Your task to perform on an android device: Clear all items from cart on bestbuy.com. Add "amazon basics triple a" to the cart on bestbuy.com Image 0: 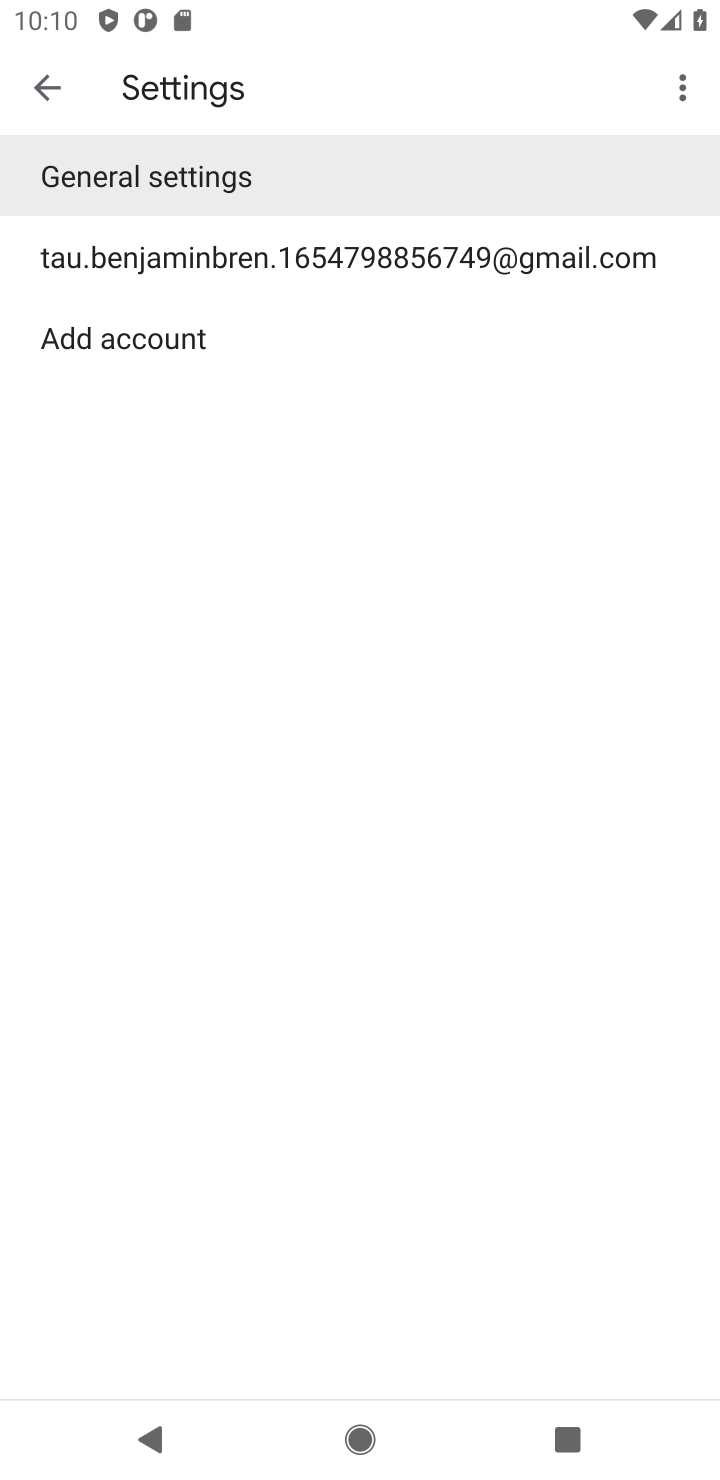
Step 0: press home button
Your task to perform on an android device: Clear all items from cart on bestbuy.com. Add "amazon basics triple a" to the cart on bestbuy.com Image 1: 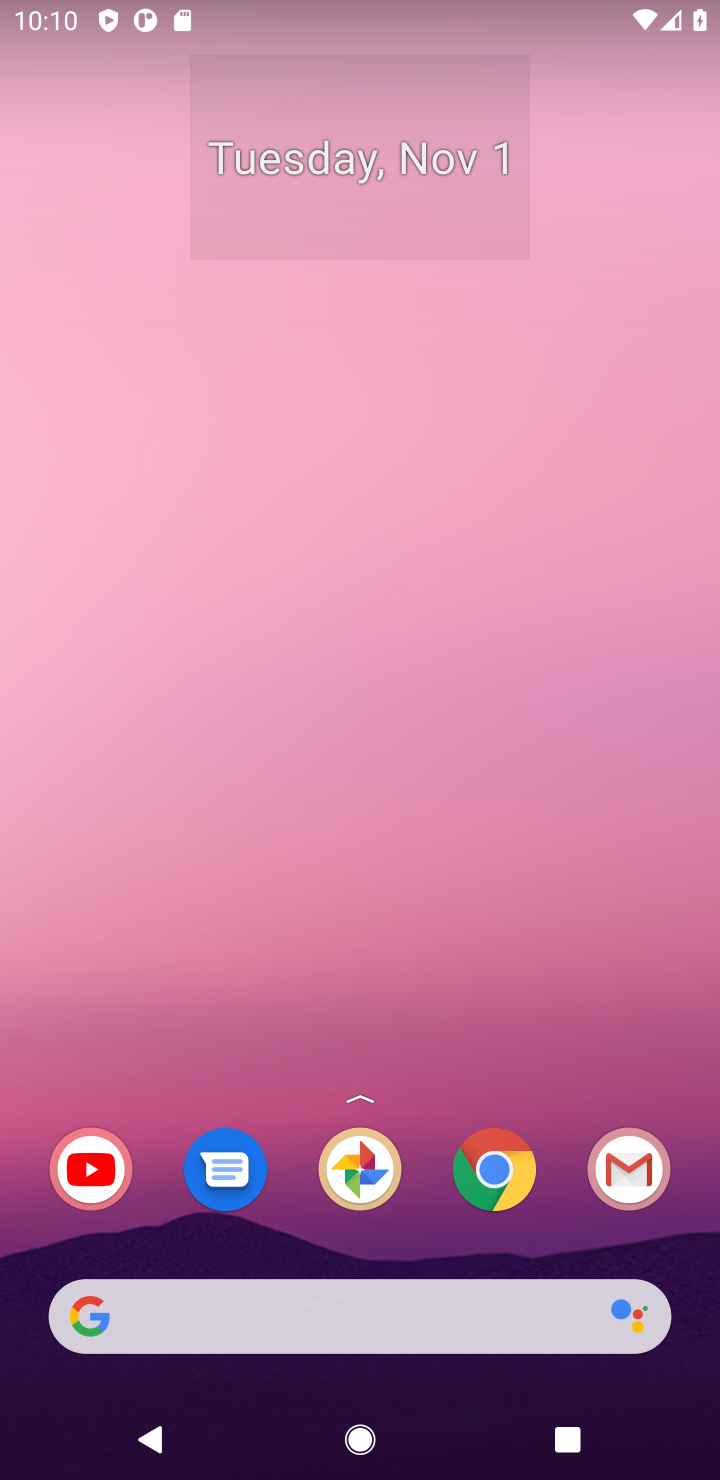
Step 1: click (491, 1172)
Your task to perform on an android device: Clear all items from cart on bestbuy.com. Add "amazon basics triple a" to the cart on bestbuy.com Image 2: 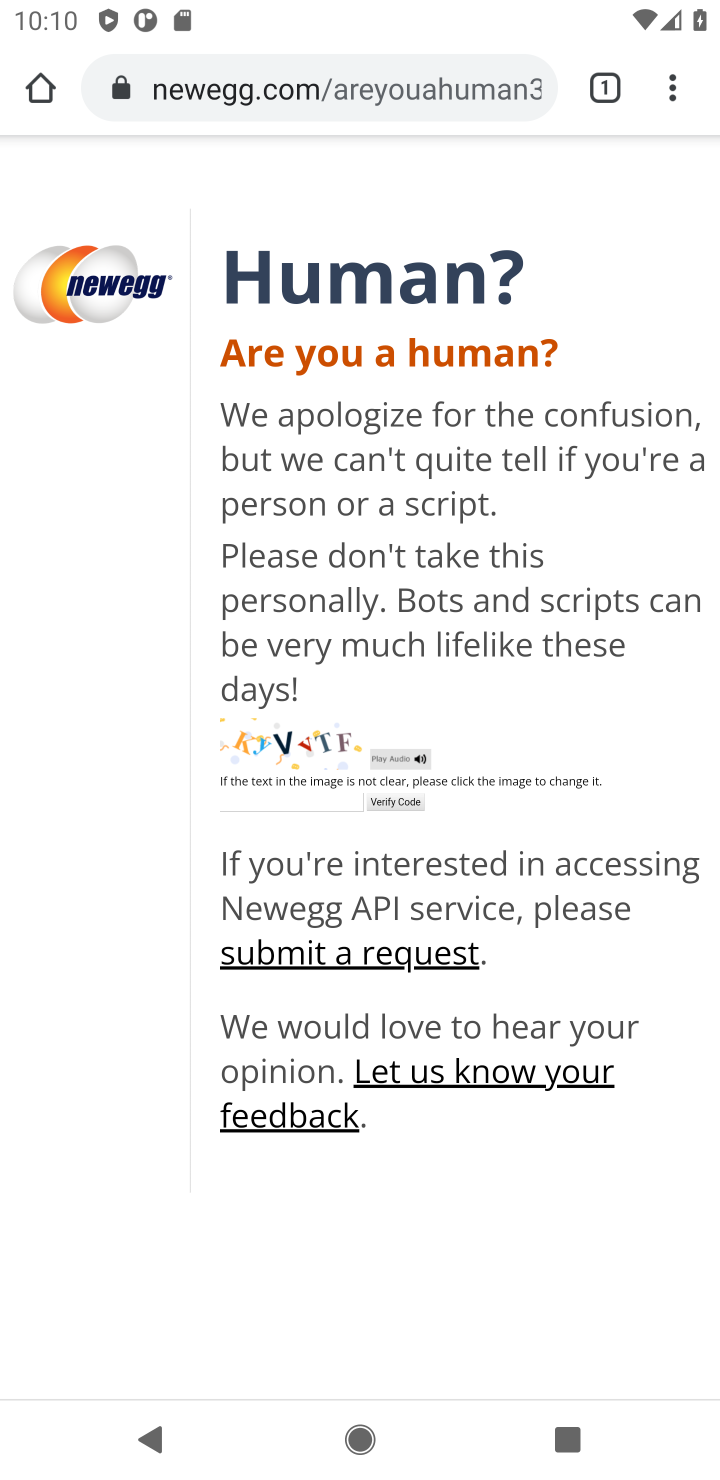
Step 2: click (360, 64)
Your task to perform on an android device: Clear all items from cart on bestbuy.com. Add "amazon basics triple a" to the cart on bestbuy.com Image 3: 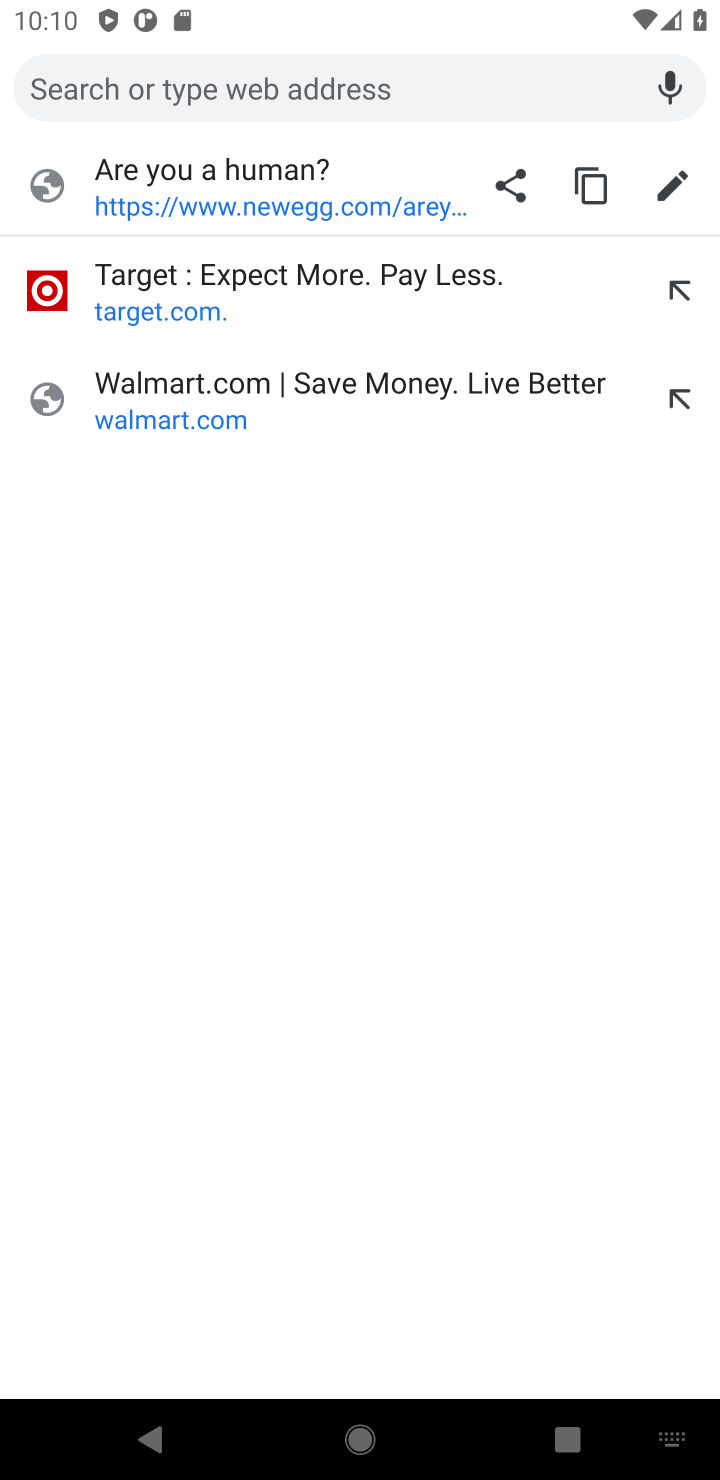
Step 3: type "bestbuy.com"
Your task to perform on an android device: Clear all items from cart on bestbuy.com. Add "amazon basics triple a" to the cart on bestbuy.com Image 4: 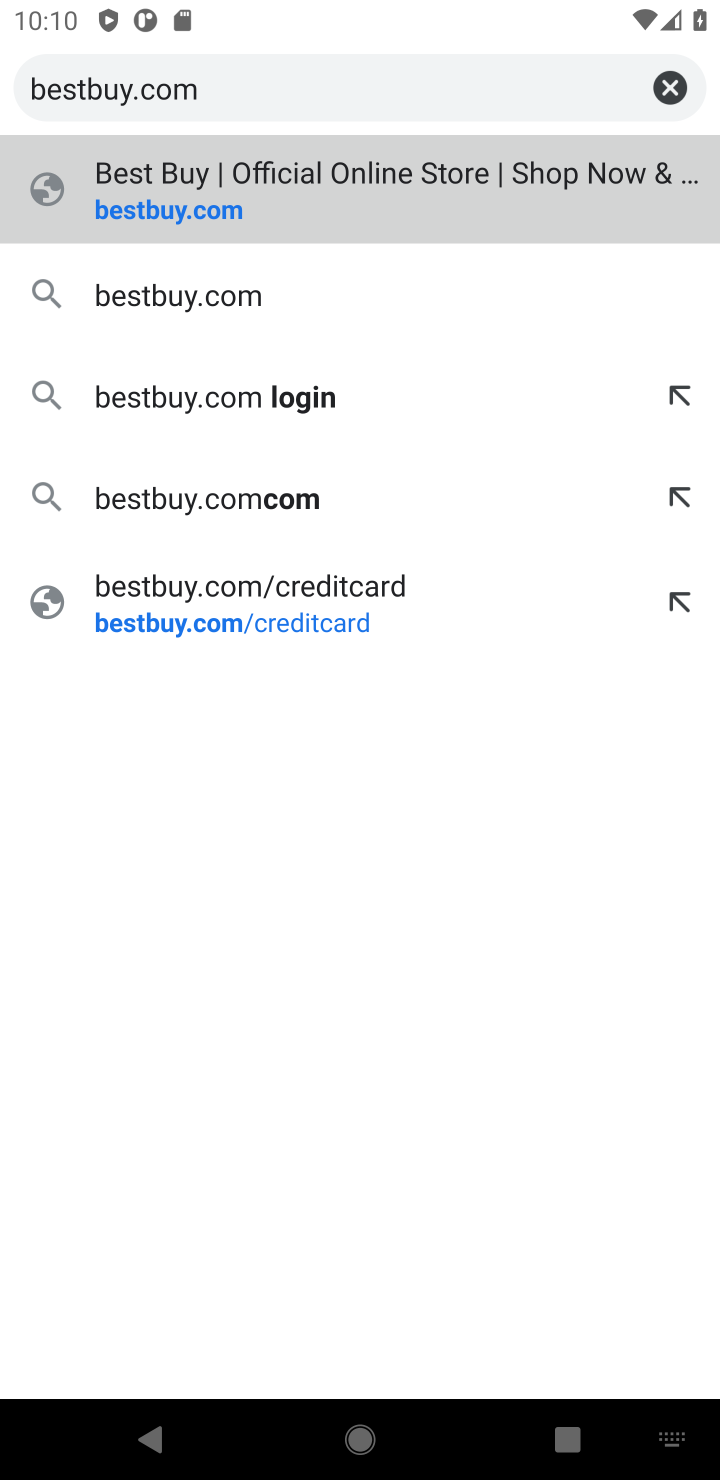
Step 4: click (217, 285)
Your task to perform on an android device: Clear all items from cart on bestbuy.com. Add "amazon basics triple a" to the cart on bestbuy.com Image 5: 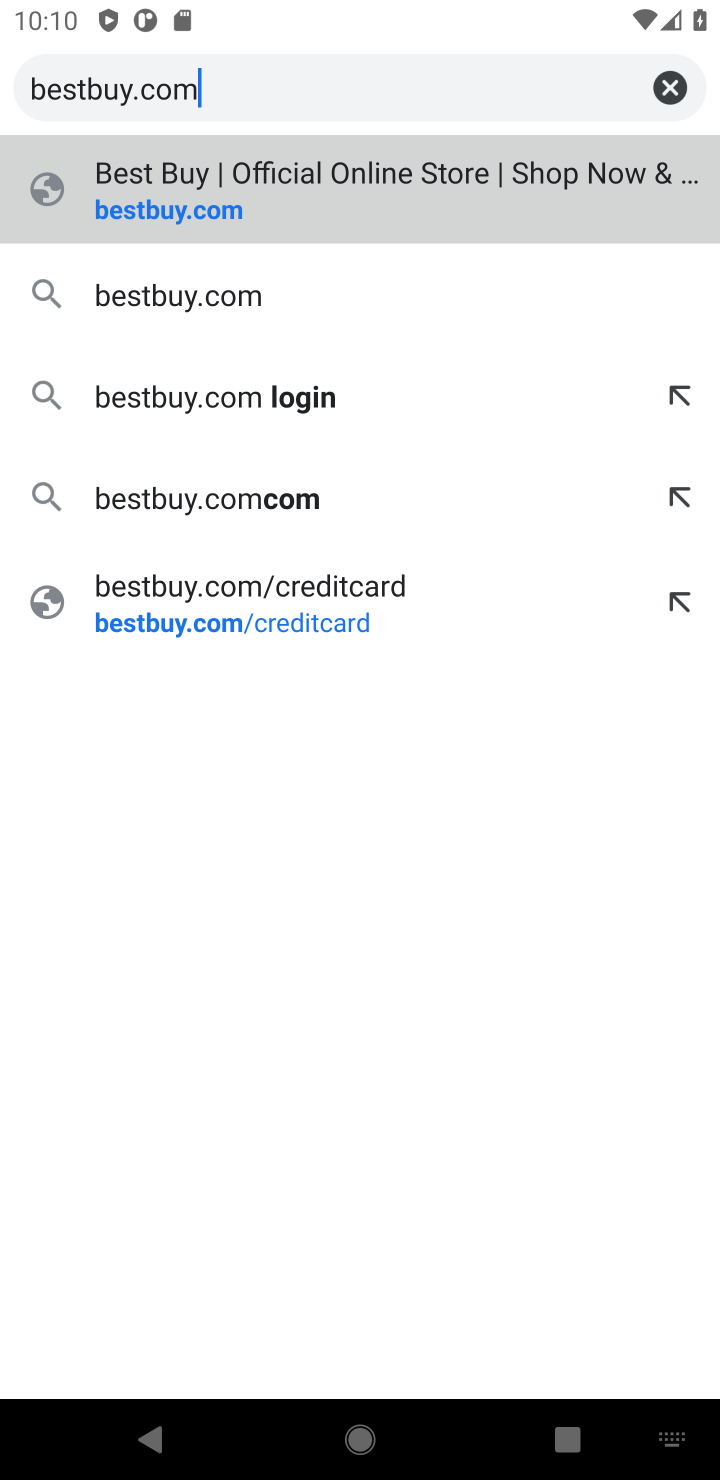
Step 5: click (193, 300)
Your task to perform on an android device: Clear all items from cart on bestbuy.com. Add "amazon basics triple a" to the cart on bestbuy.com Image 6: 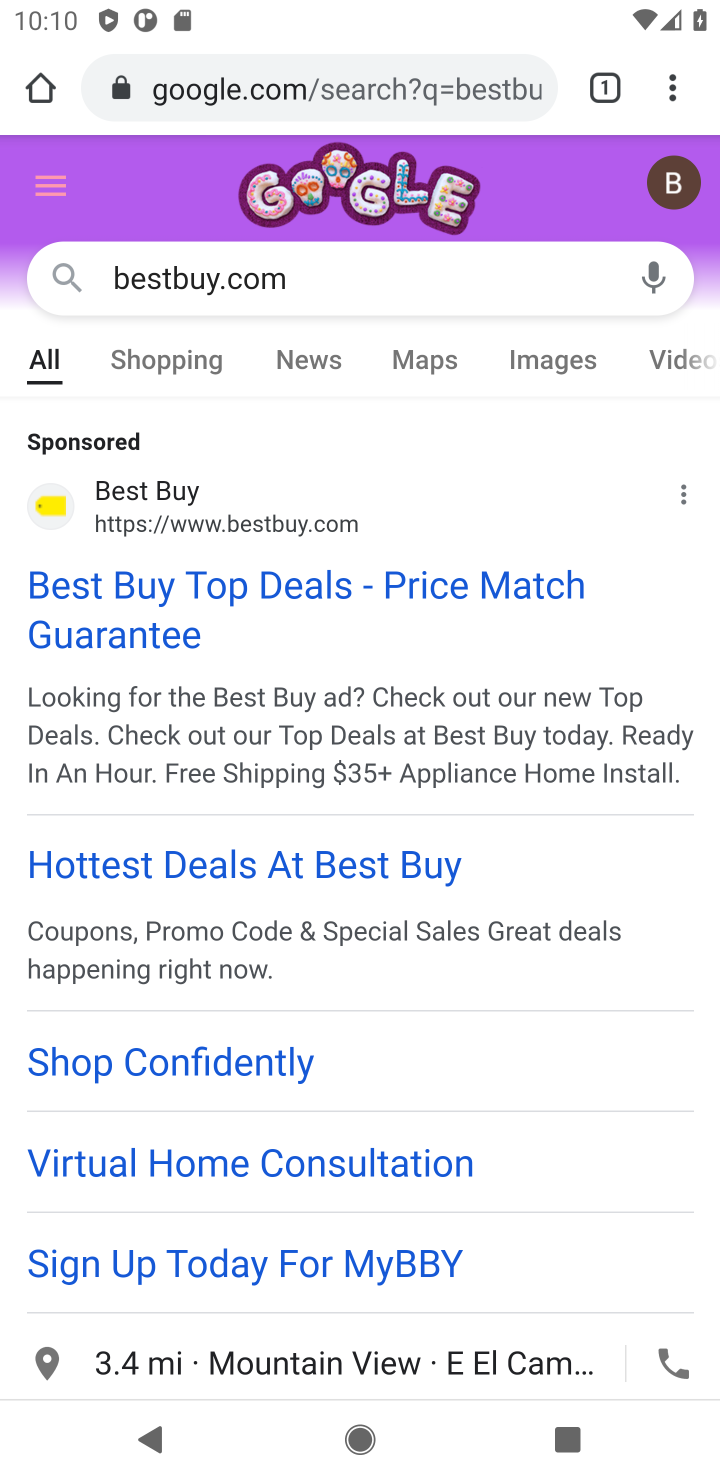
Step 6: drag from (228, 1119) to (219, 541)
Your task to perform on an android device: Clear all items from cart on bestbuy.com. Add "amazon basics triple a" to the cart on bestbuy.com Image 7: 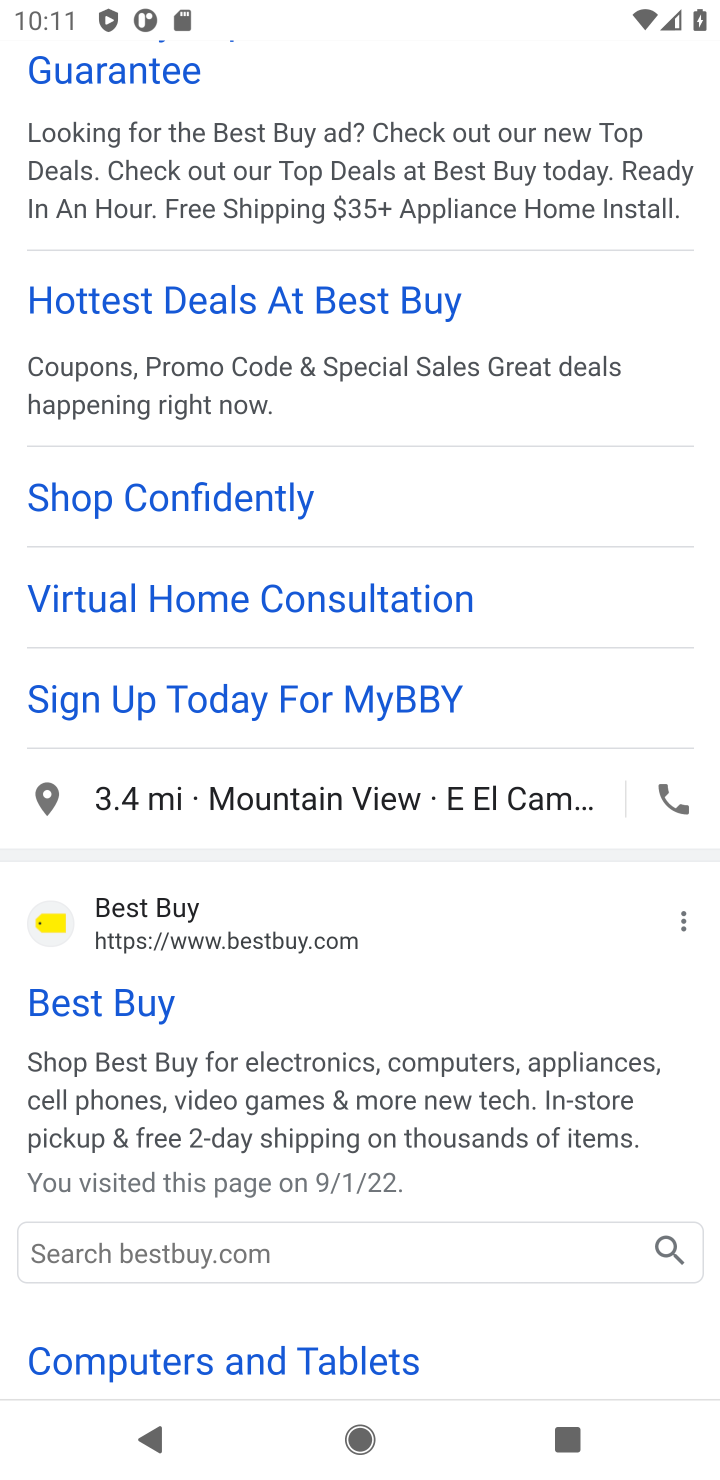
Step 7: click (147, 897)
Your task to perform on an android device: Clear all items from cart on bestbuy.com. Add "amazon basics triple a" to the cart on bestbuy.com Image 8: 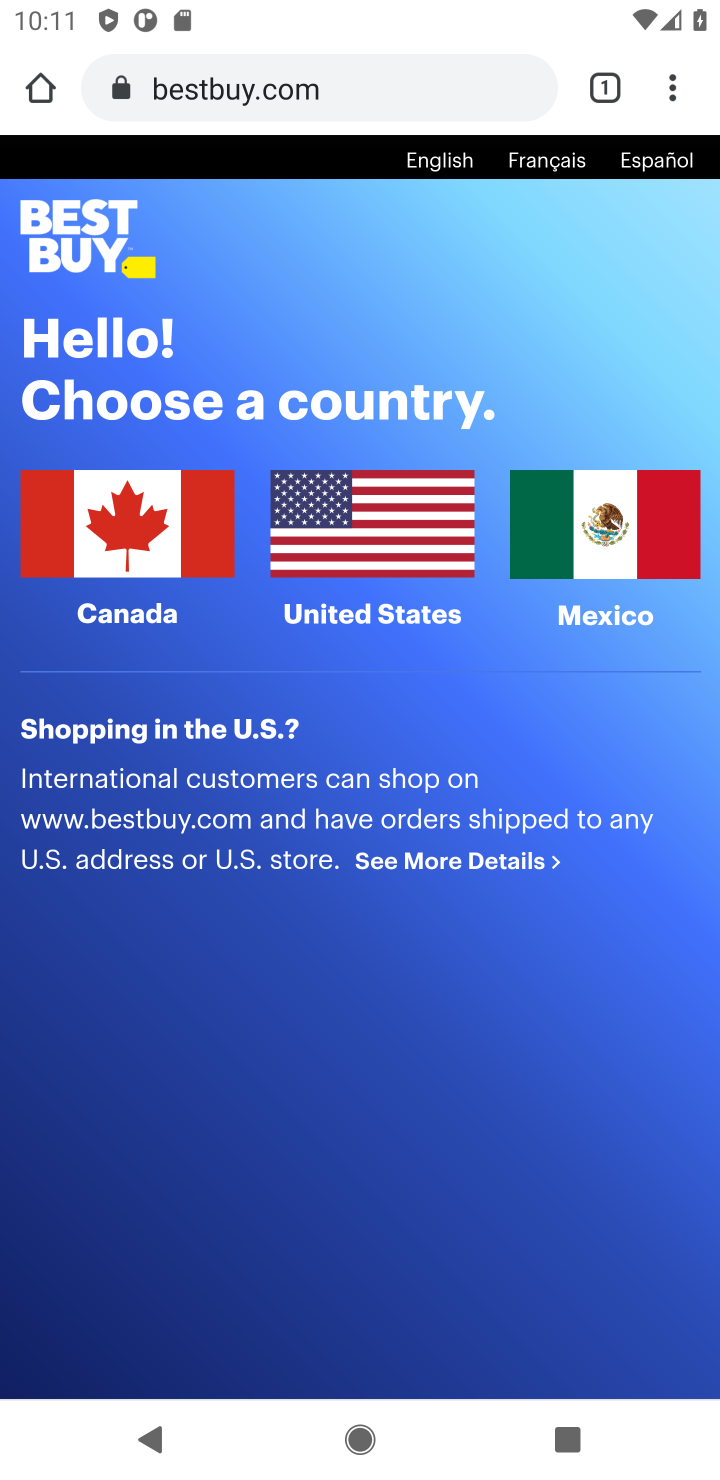
Step 8: click (393, 522)
Your task to perform on an android device: Clear all items from cart on bestbuy.com. Add "amazon basics triple a" to the cart on bestbuy.com Image 9: 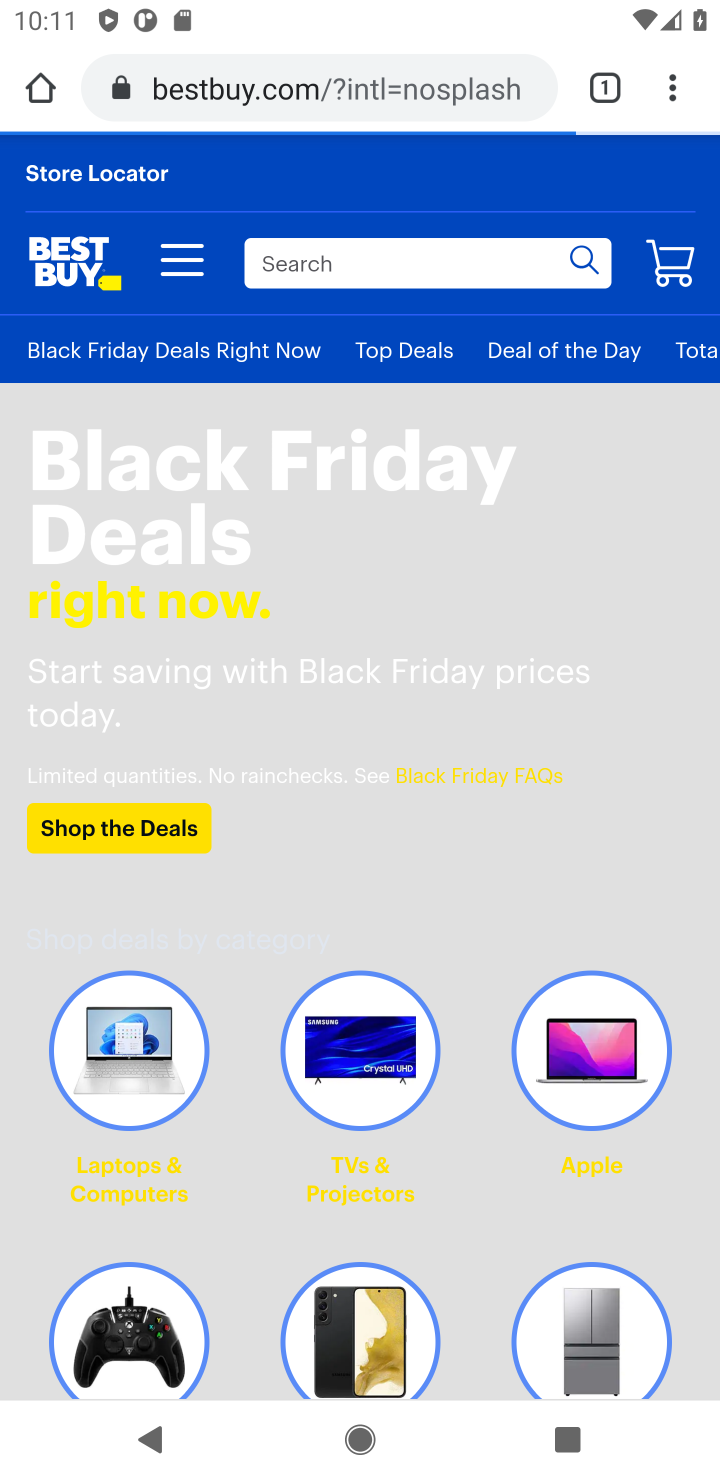
Step 9: click (368, 266)
Your task to perform on an android device: Clear all items from cart on bestbuy.com. Add "amazon basics triple a" to the cart on bestbuy.com Image 10: 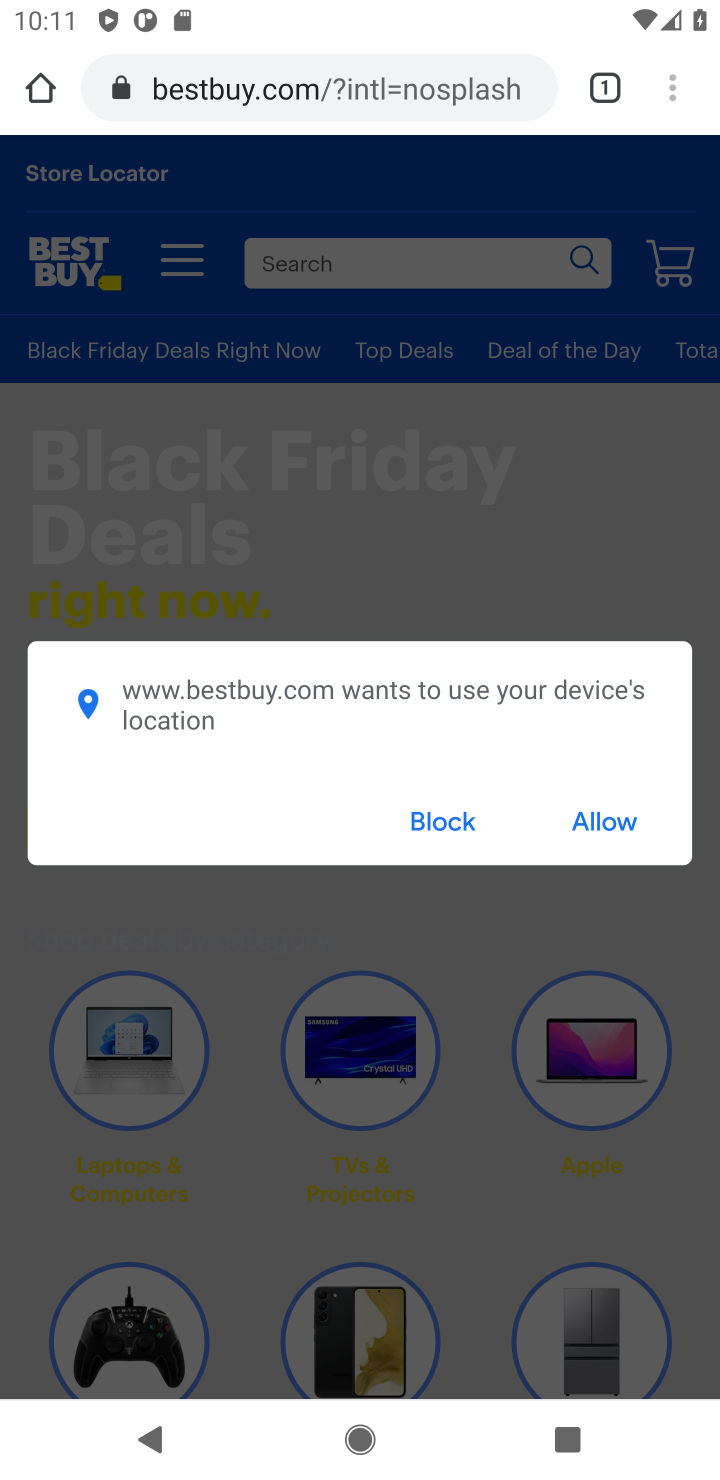
Step 10: click (427, 815)
Your task to perform on an android device: Clear all items from cart on bestbuy.com. Add "amazon basics triple a" to the cart on bestbuy.com Image 11: 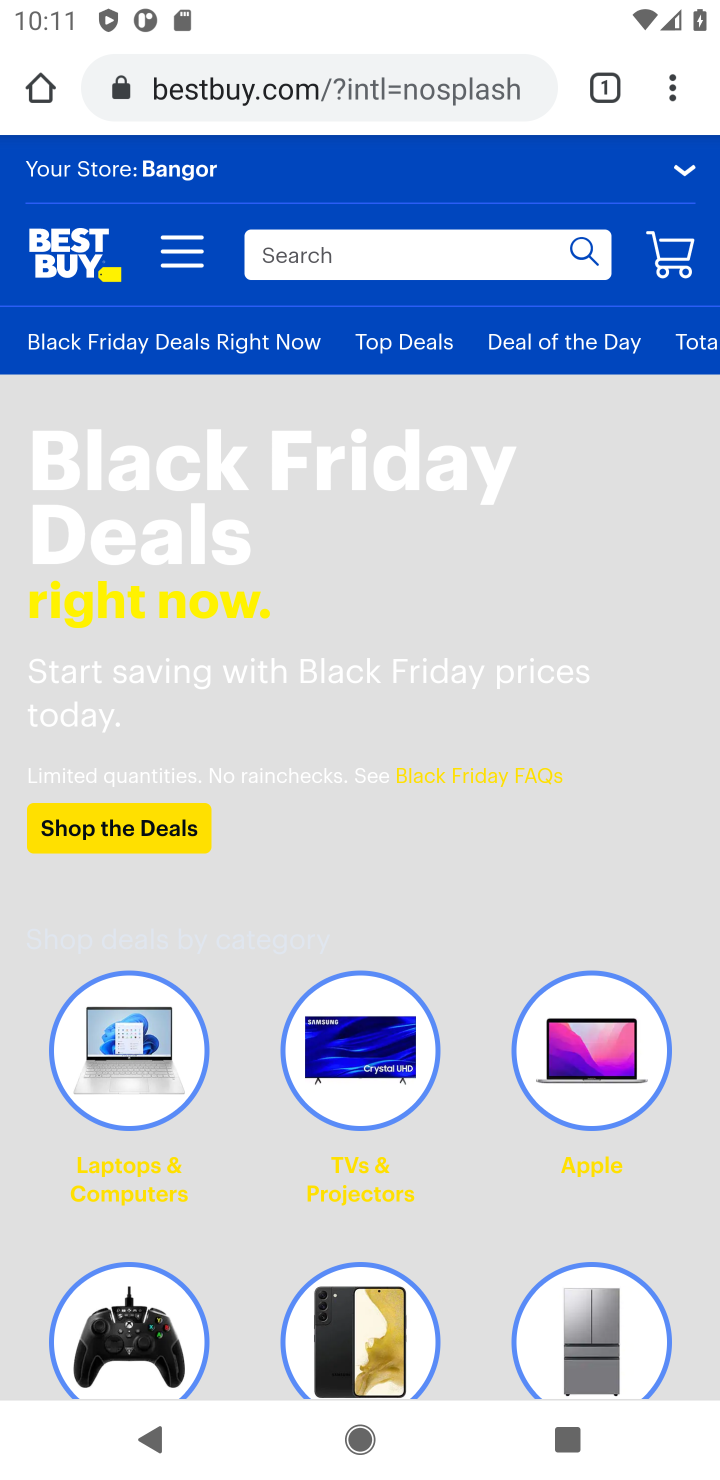
Step 11: click (366, 242)
Your task to perform on an android device: Clear all items from cart on bestbuy.com. Add "amazon basics triple a" to the cart on bestbuy.com Image 12: 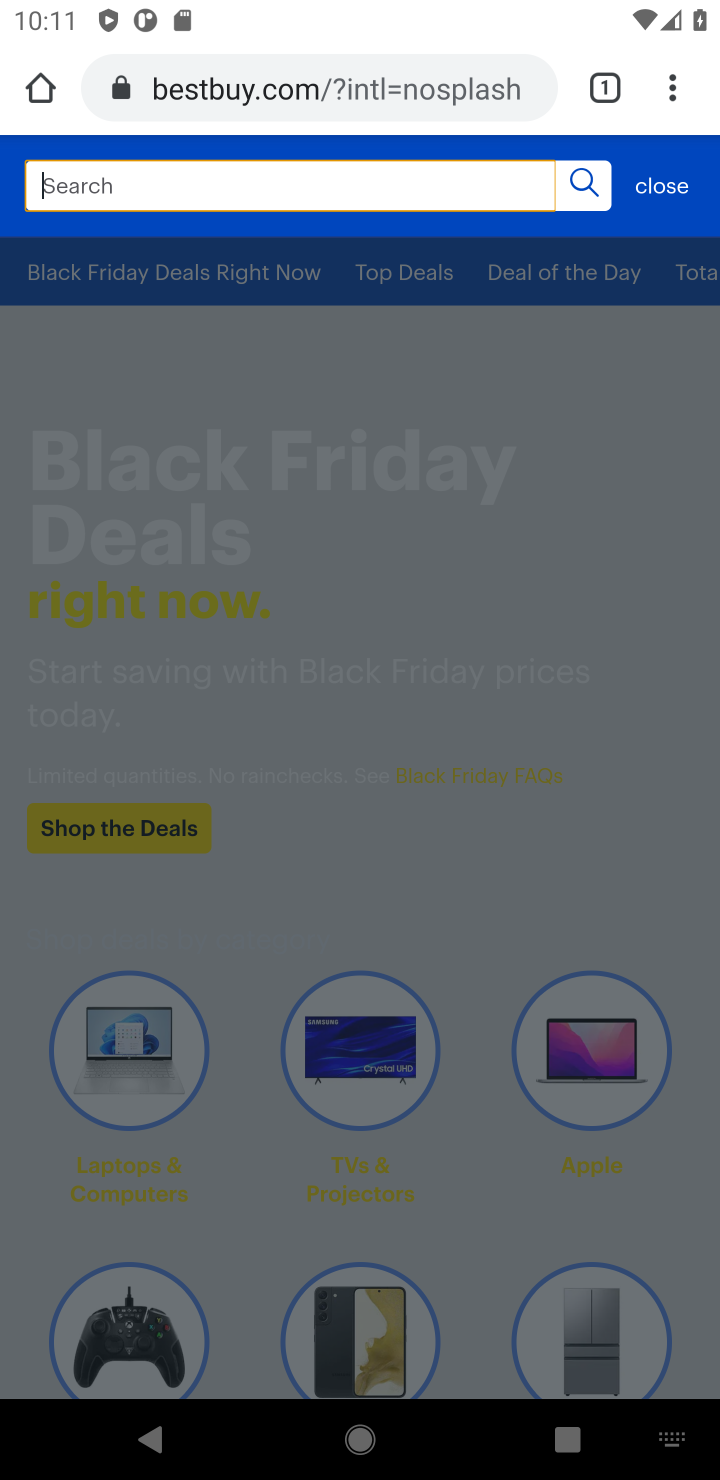
Step 12: press enter
Your task to perform on an android device: Clear all items from cart on bestbuy.com. Add "amazon basics triple a" to the cart on bestbuy.com Image 13: 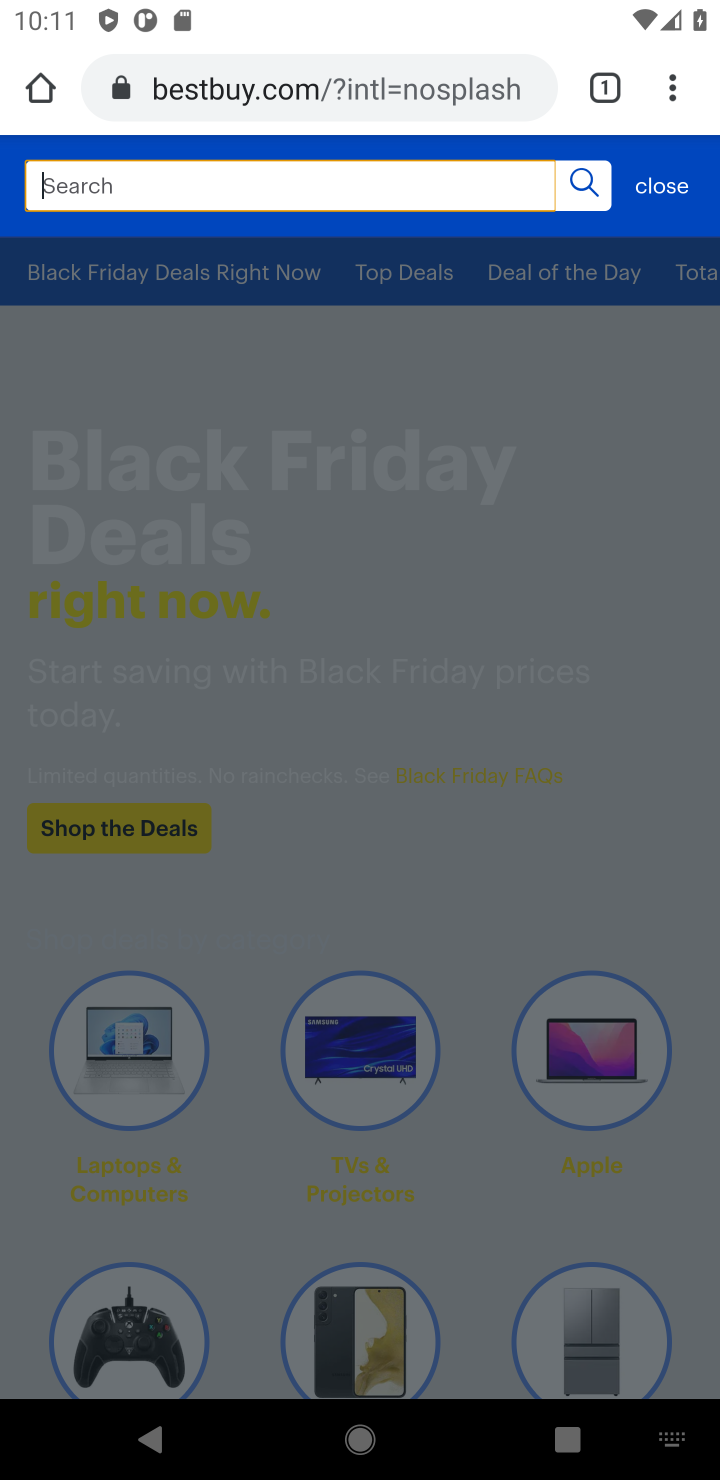
Step 13: type "amazon basics triple a"
Your task to perform on an android device: Clear all items from cart on bestbuy.com. Add "amazon basics triple a" to the cart on bestbuy.com Image 14: 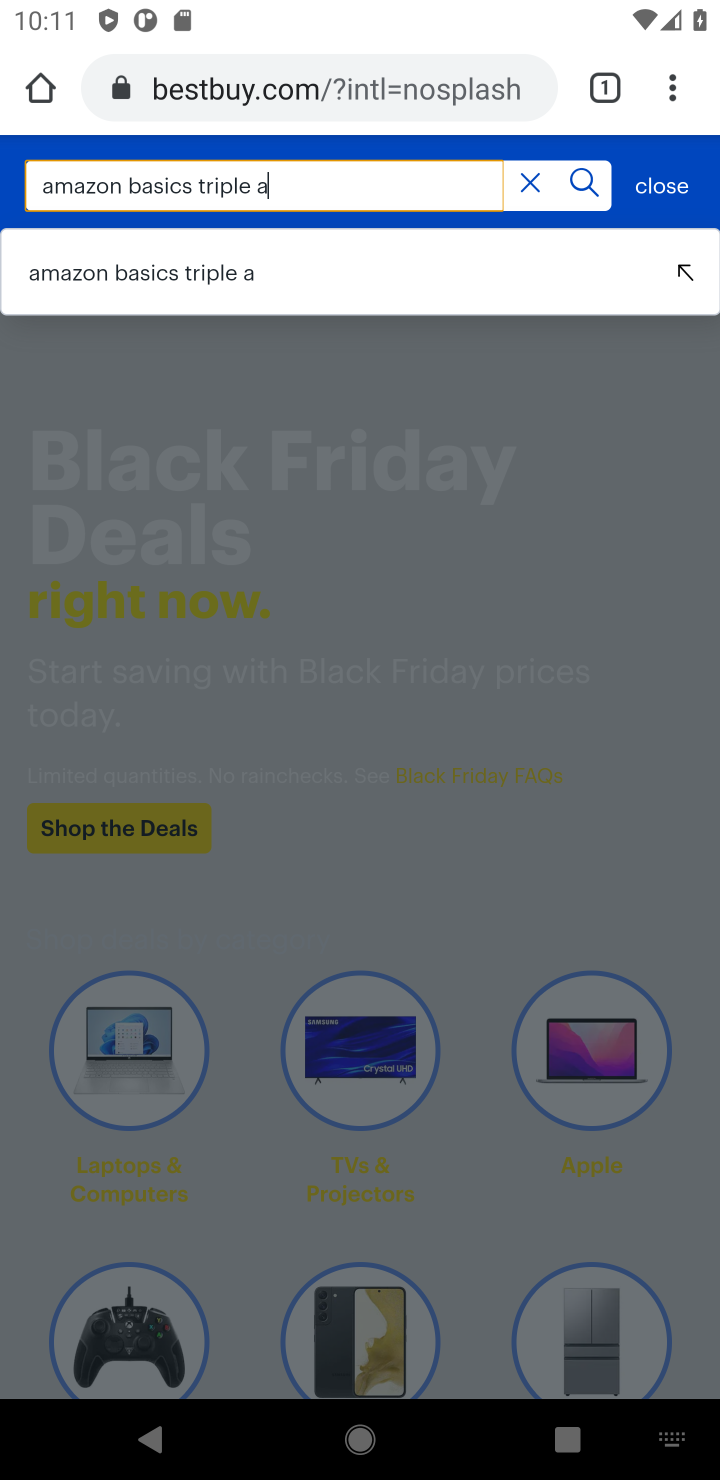
Step 14: click (403, 282)
Your task to perform on an android device: Clear all items from cart on bestbuy.com. Add "amazon basics triple a" to the cart on bestbuy.com Image 15: 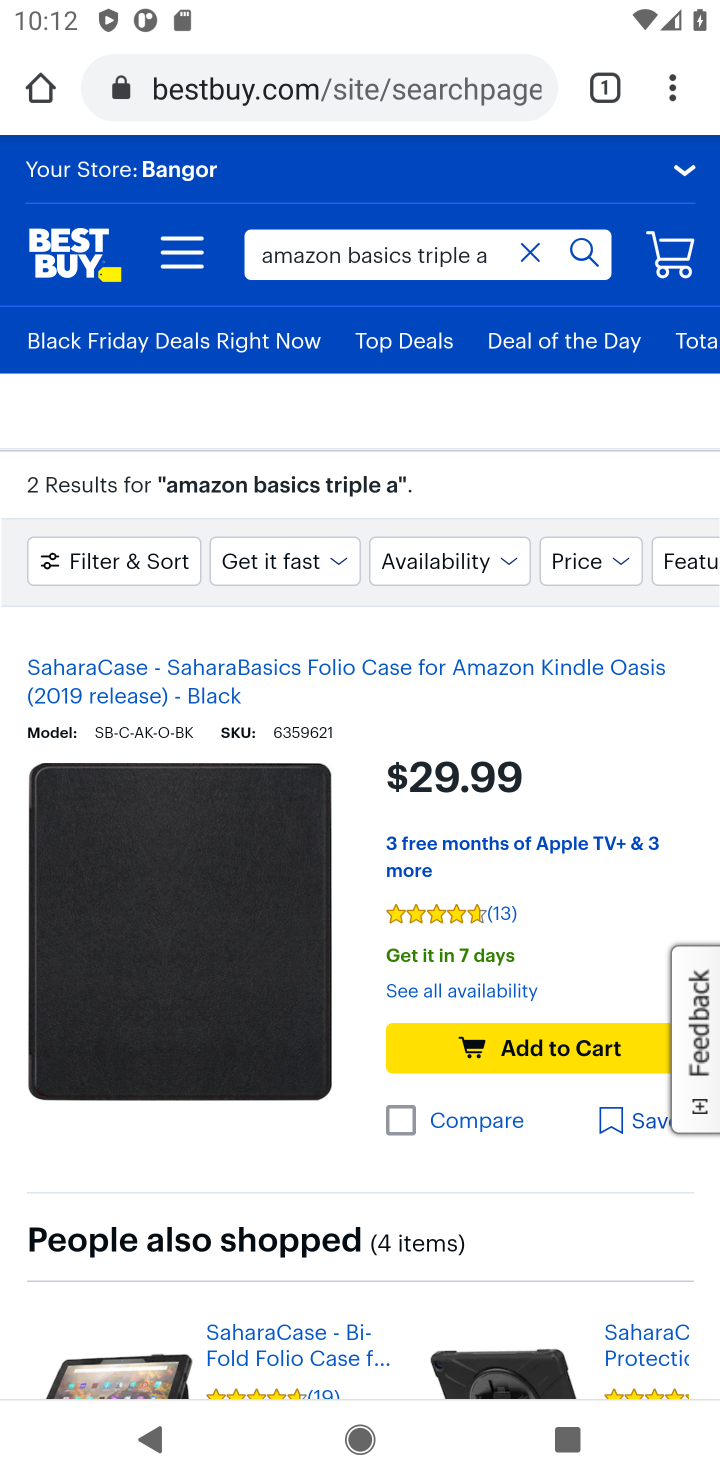
Step 15: drag from (290, 1018) to (288, 588)
Your task to perform on an android device: Clear all items from cart on bestbuy.com. Add "amazon basics triple a" to the cart on bestbuy.com Image 16: 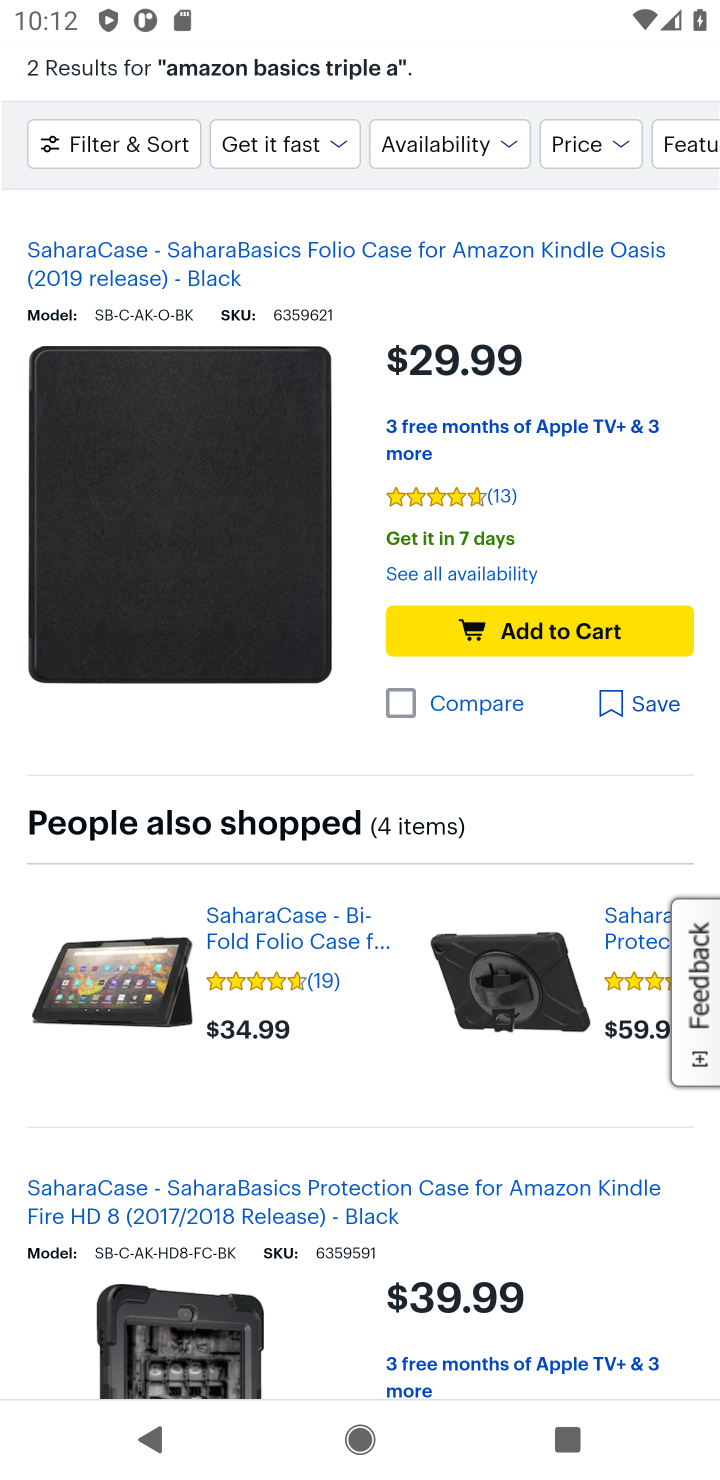
Step 16: drag from (336, 1149) to (334, 596)
Your task to perform on an android device: Clear all items from cart on bestbuy.com. Add "amazon basics triple a" to the cart on bestbuy.com Image 17: 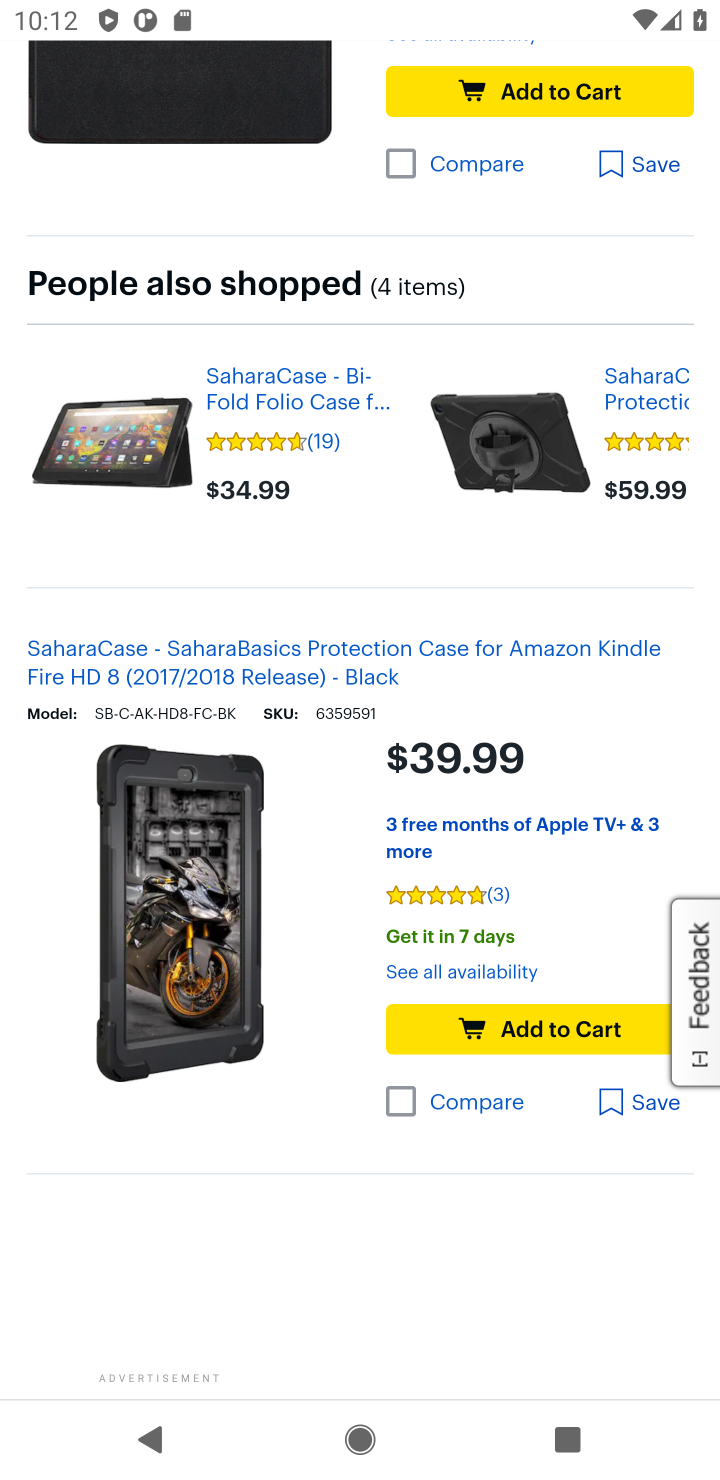
Step 17: drag from (227, 802) to (229, 390)
Your task to perform on an android device: Clear all items from cart on bestbuy.com. Add "amazon basics triple a" to the cart on bestbuy.com Image 18: 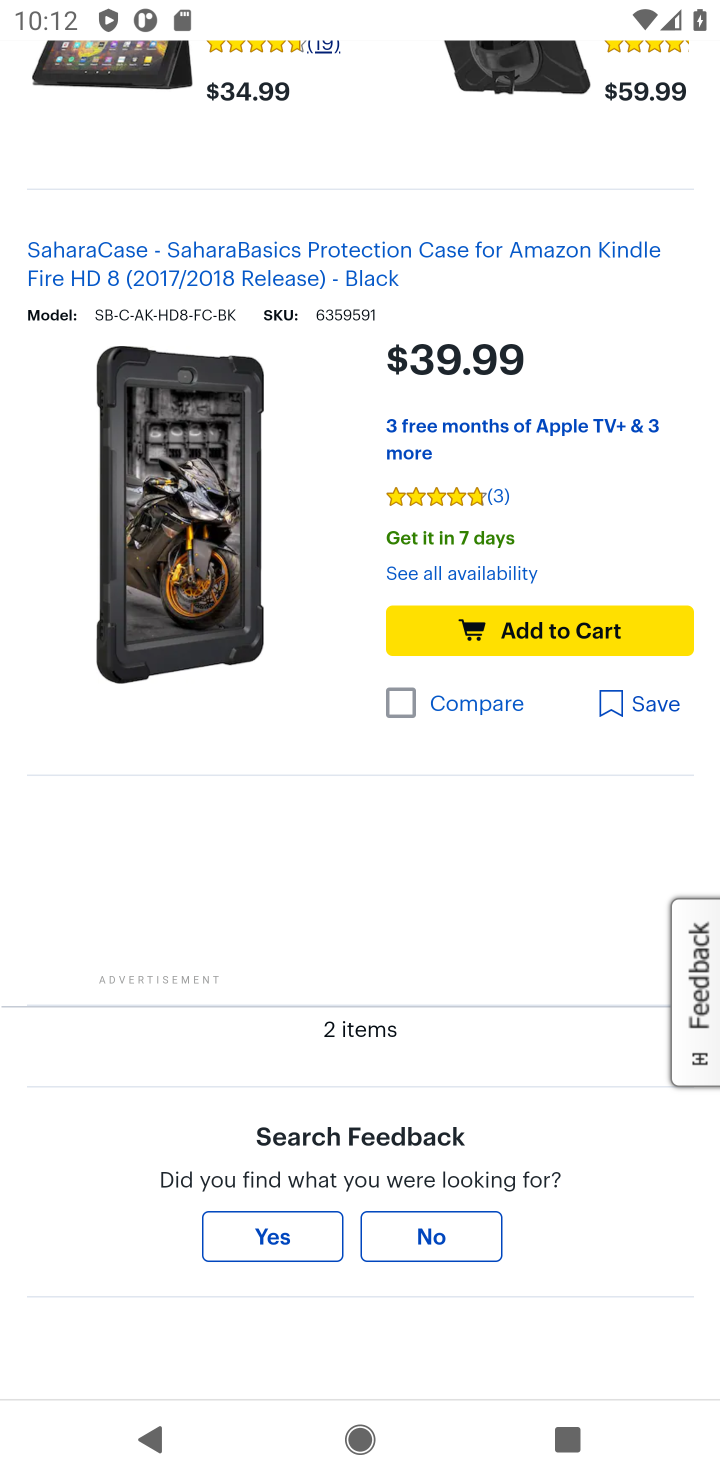
Step 18: drag from (336, 946) to (312, 387)
Your task to perform on an android device: Clear all items from cart on bestbuy.com. Add "amazon basics triple a" to the cart on bestbuy.com Image 19: 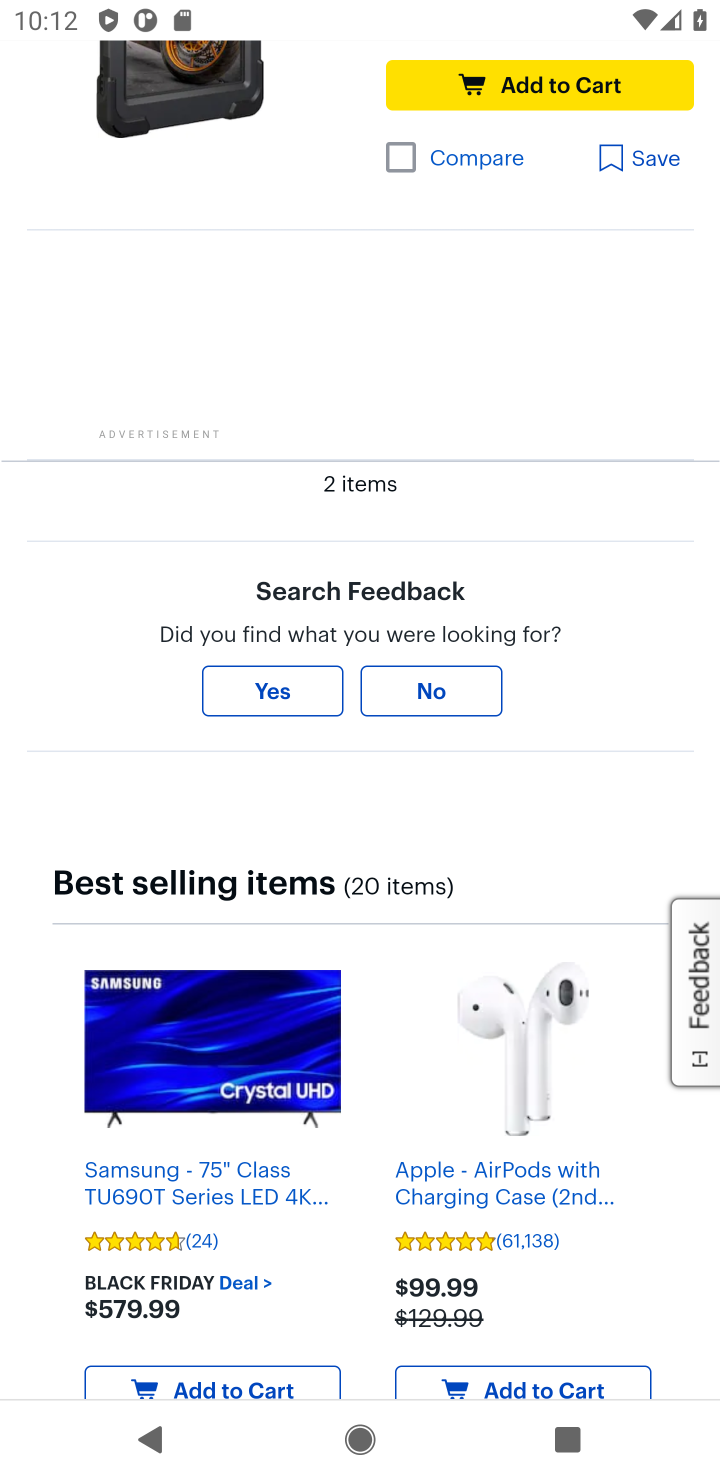
Step 19: drag from (348, 926) to (333, 584)
Your task to perform on an android device: Clear all items from cart on bestbuy.com. Add "amazon basics triple a" to the cart on bestbuy.com Image 20: 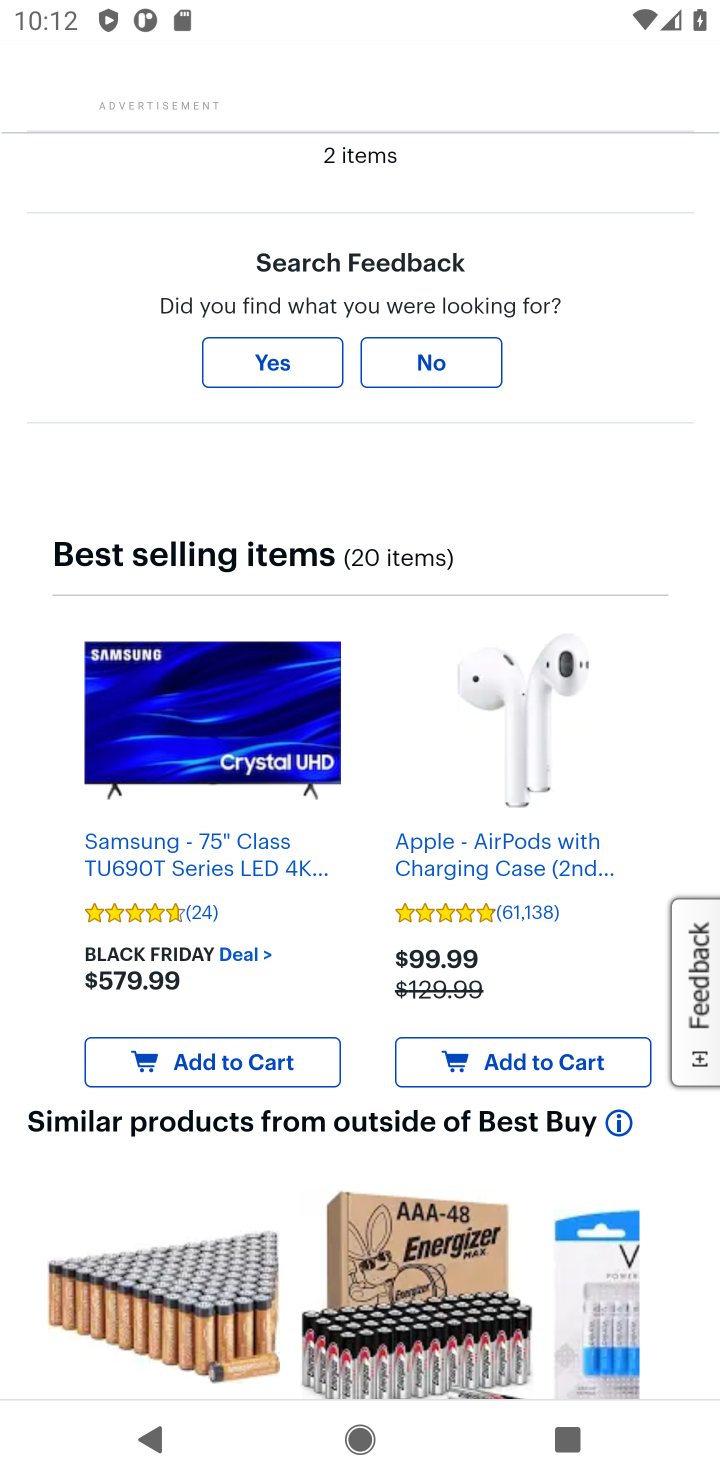
Step 20: drag from (317, 1197) to (338, 585)
Your task to perform on an android device: Clear all items from cart on bestbuy.com. Add "amazon basics triple a" to the cart on bestbuy.com Image 21: 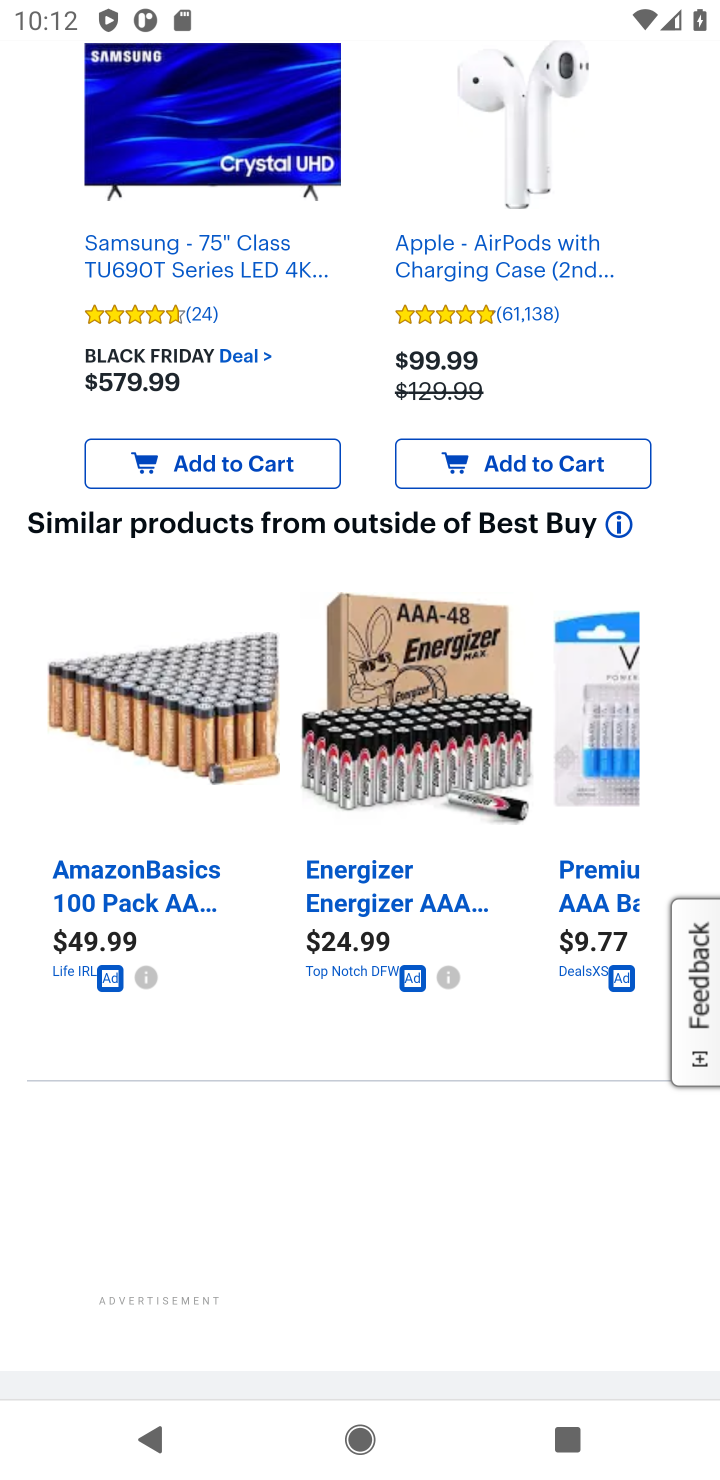
Step 21: click (119, 658)
Your task to perform on an android device: Clear all items from cart on bestbuy.com. Add "amazon basics triple a" to the cart on bestbuy.com Image 22: 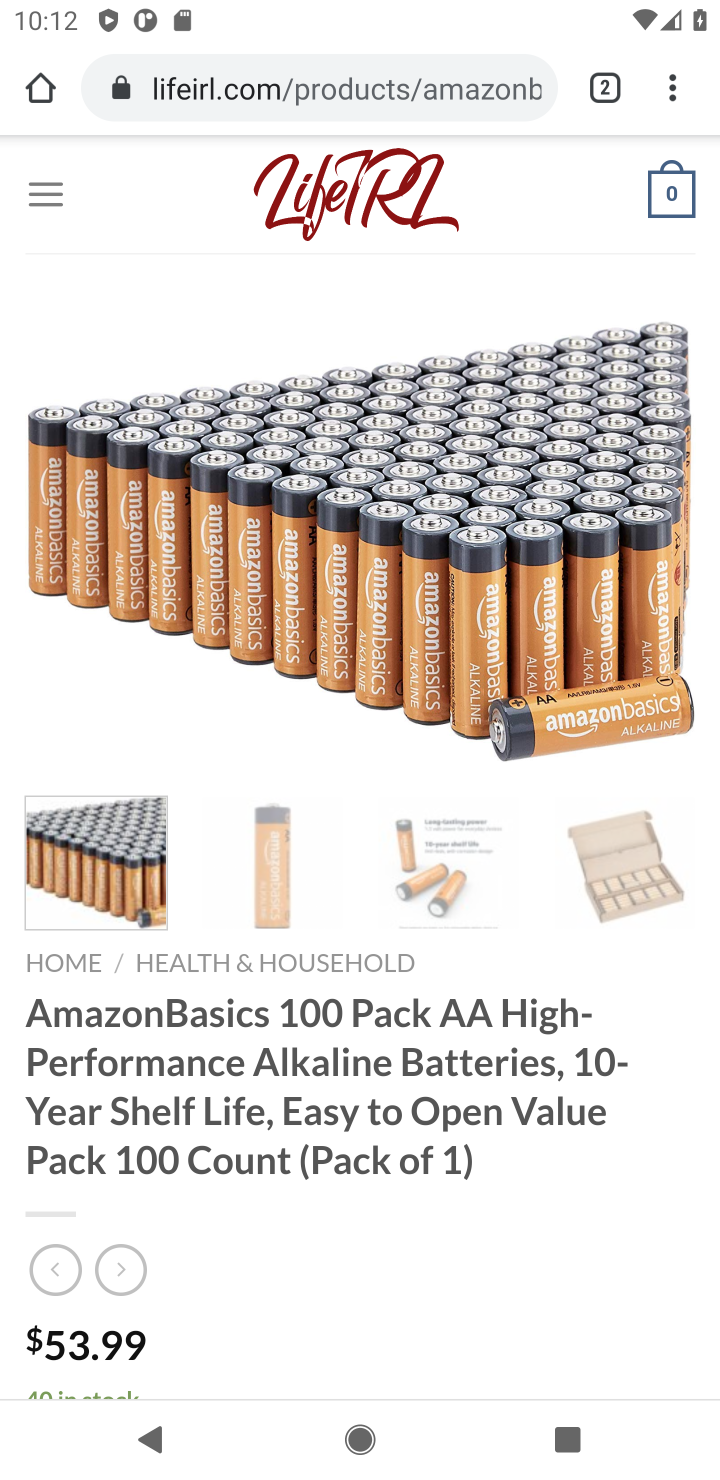
Step 22: press back button
Your task to perform on an android device: Clear all items from cart on bestbuy.com. Add "amazon basics triple a" to the cart on bestbuy.com Image 23: 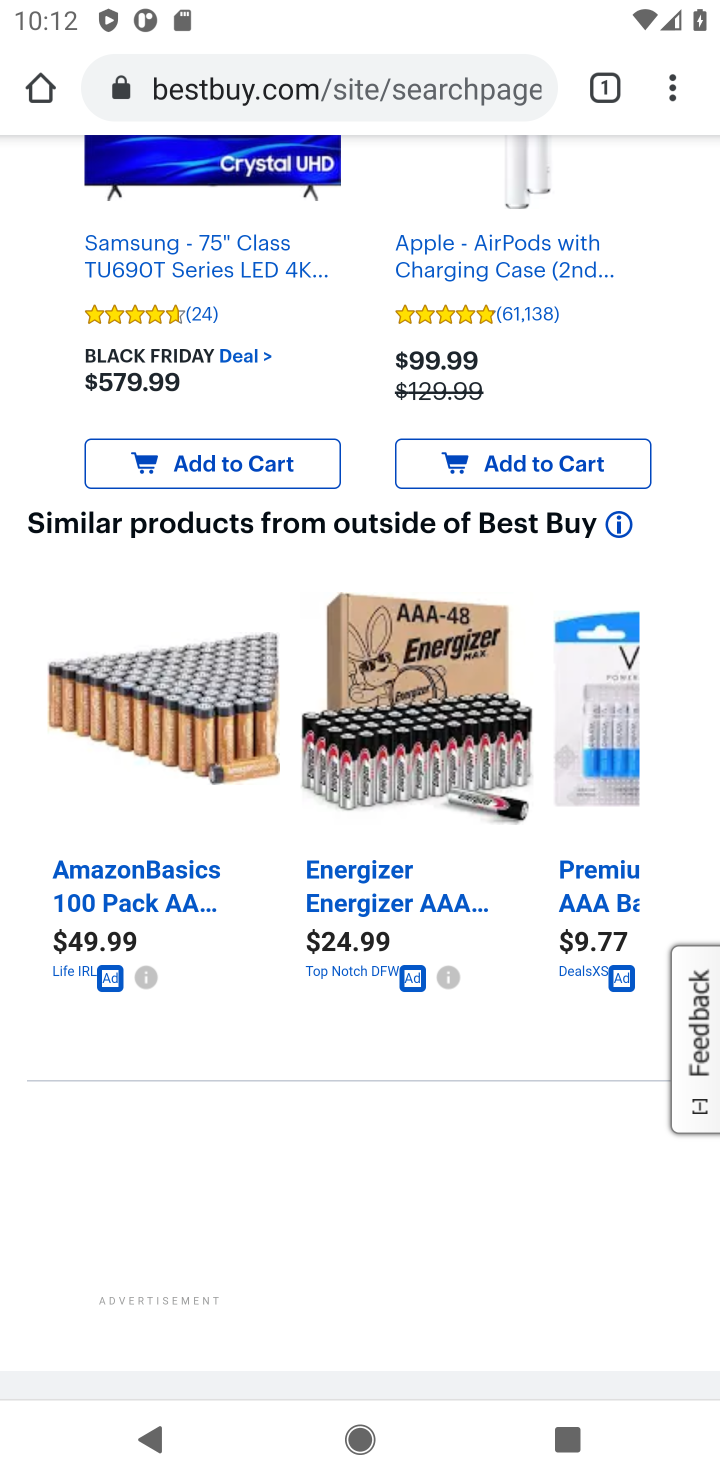
Step 23: click (400, 685)
Your task to perform on an android device: Clear all items from cart on bestbuy.com. Add "amazon basics triple a" to the cart on bestbuy.com Image 24: 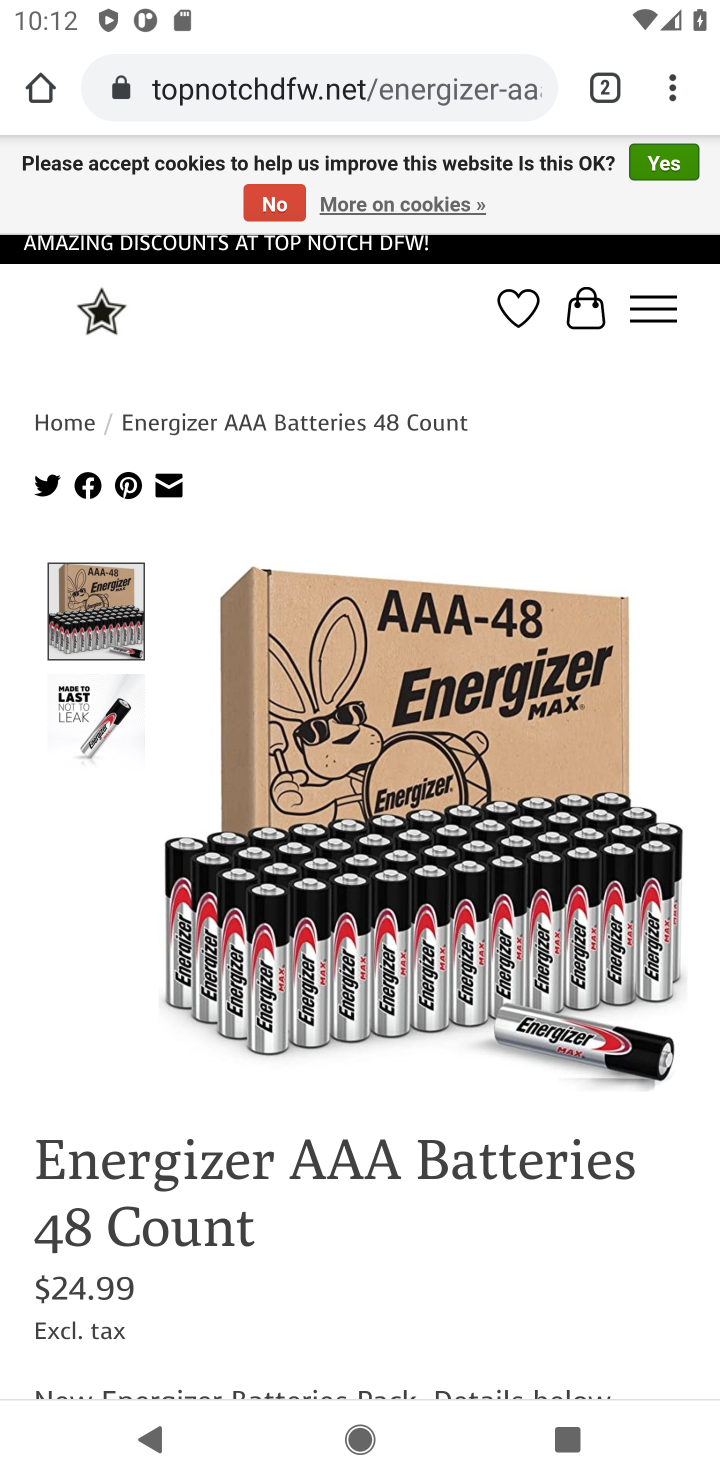
Step 24: drag from (434, 899) to (432, 803)
Your task to perform on an android device: Clear all items from cart on bestbuy.com. Add "amazon basics triple a" to the cart on bestbuy.com Image 25: 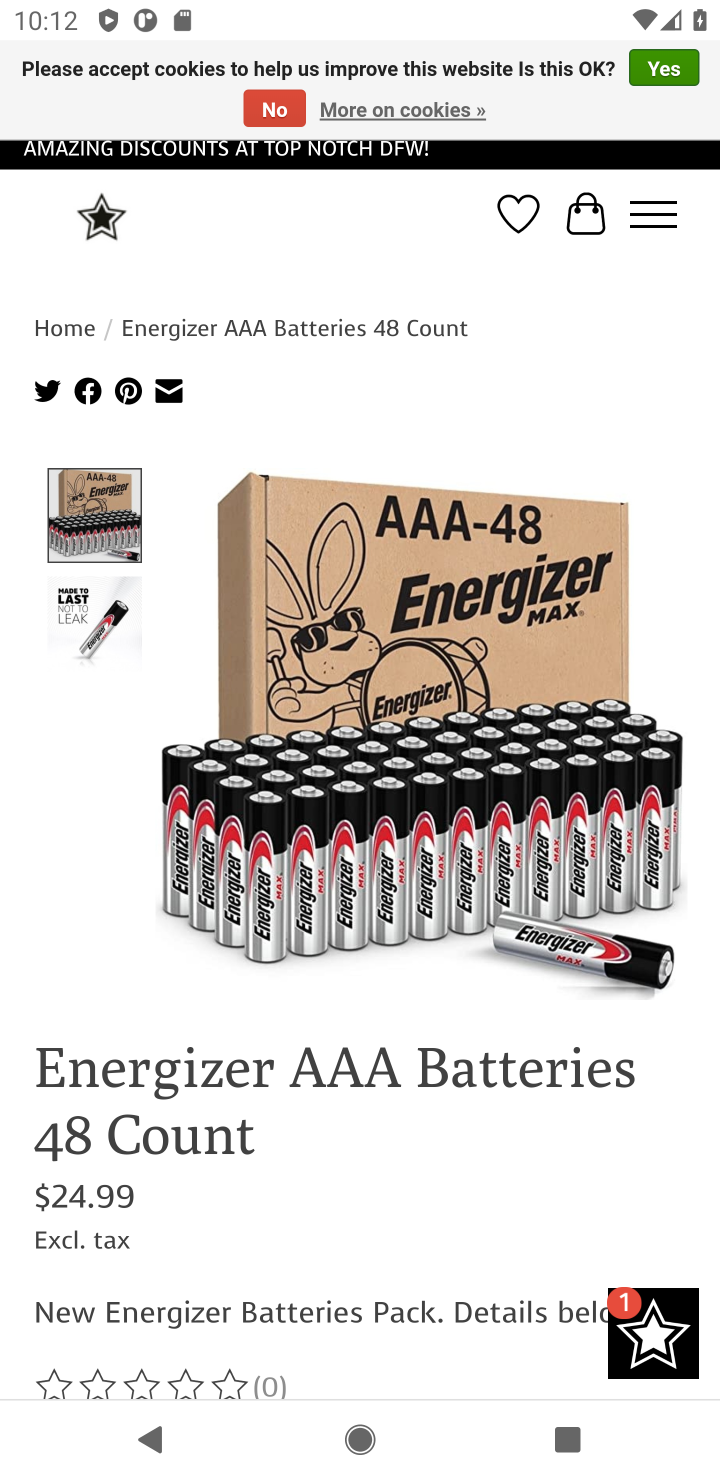
Step 25: press back button
Your task to perform on an android device: Clear all items from cart on bestbuy.com. Add "amazon basics triple a" to the cart on bestbuy.com Image 26: 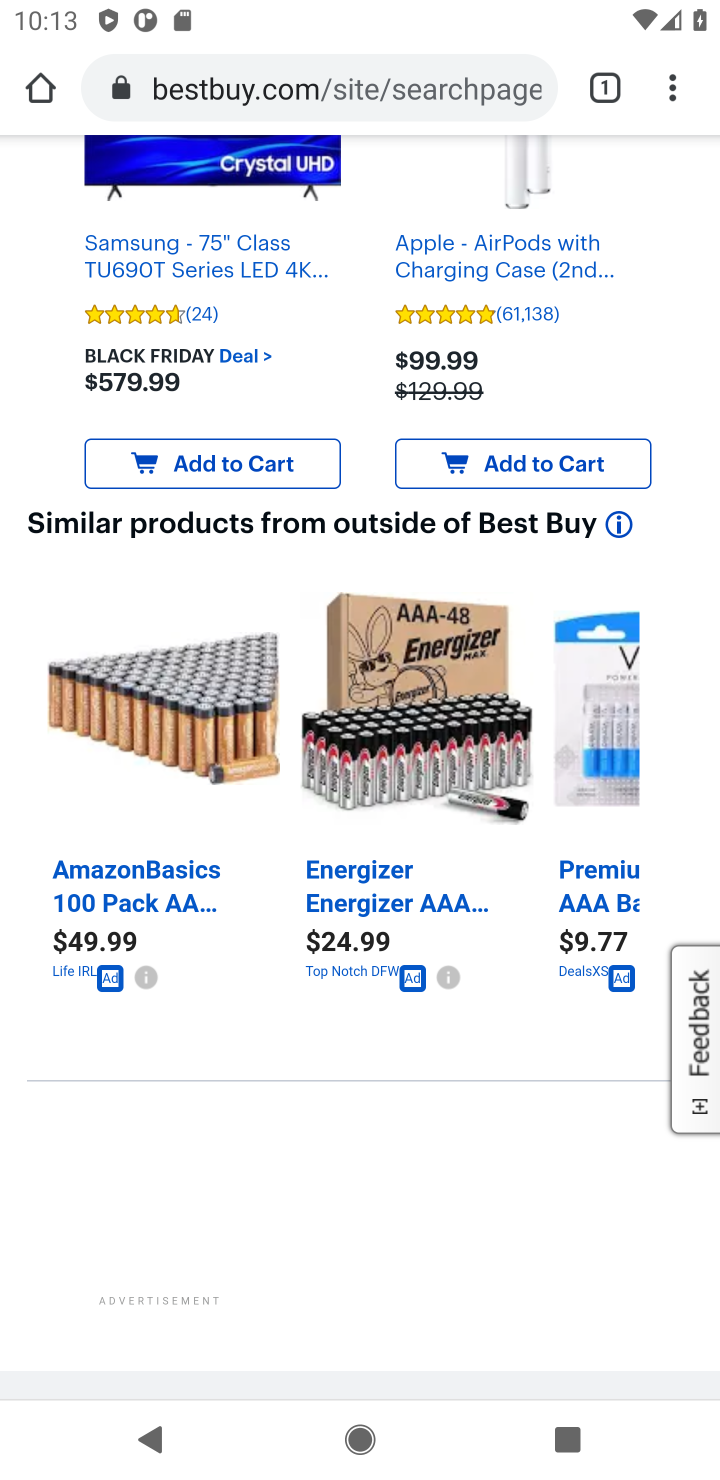
Step 26: click (163, 750)
Your task to perform on an android device: Clear all items from cart on bestbuy.com. Add "amazon basics triple a" to the cart on bestbuy.com Image 27: 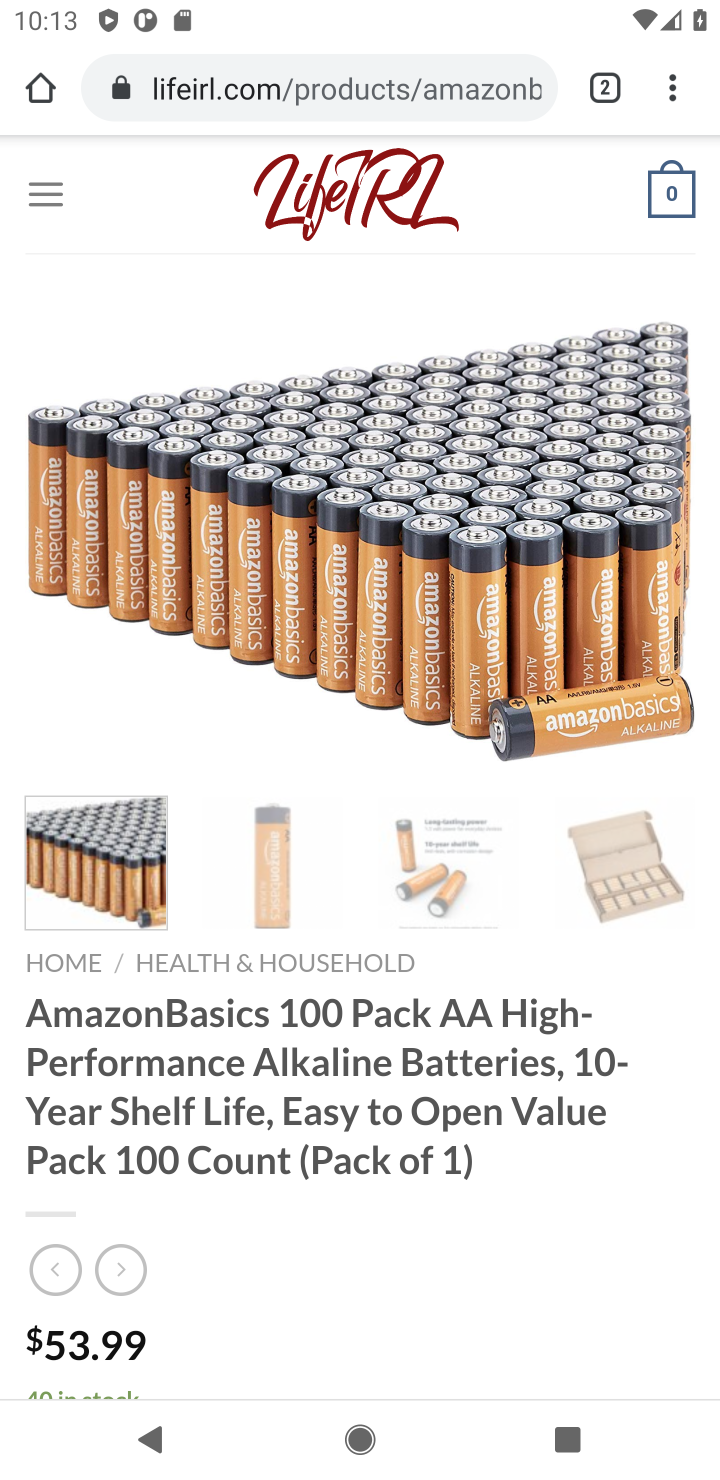
Step 27: drag from (360, 776) to (382, 508)
Your task to perform on an android device: Clear all items from cart on bestbuy.com. Add "amazon basics triple a" to the cart on bestbuy.com Image 28: 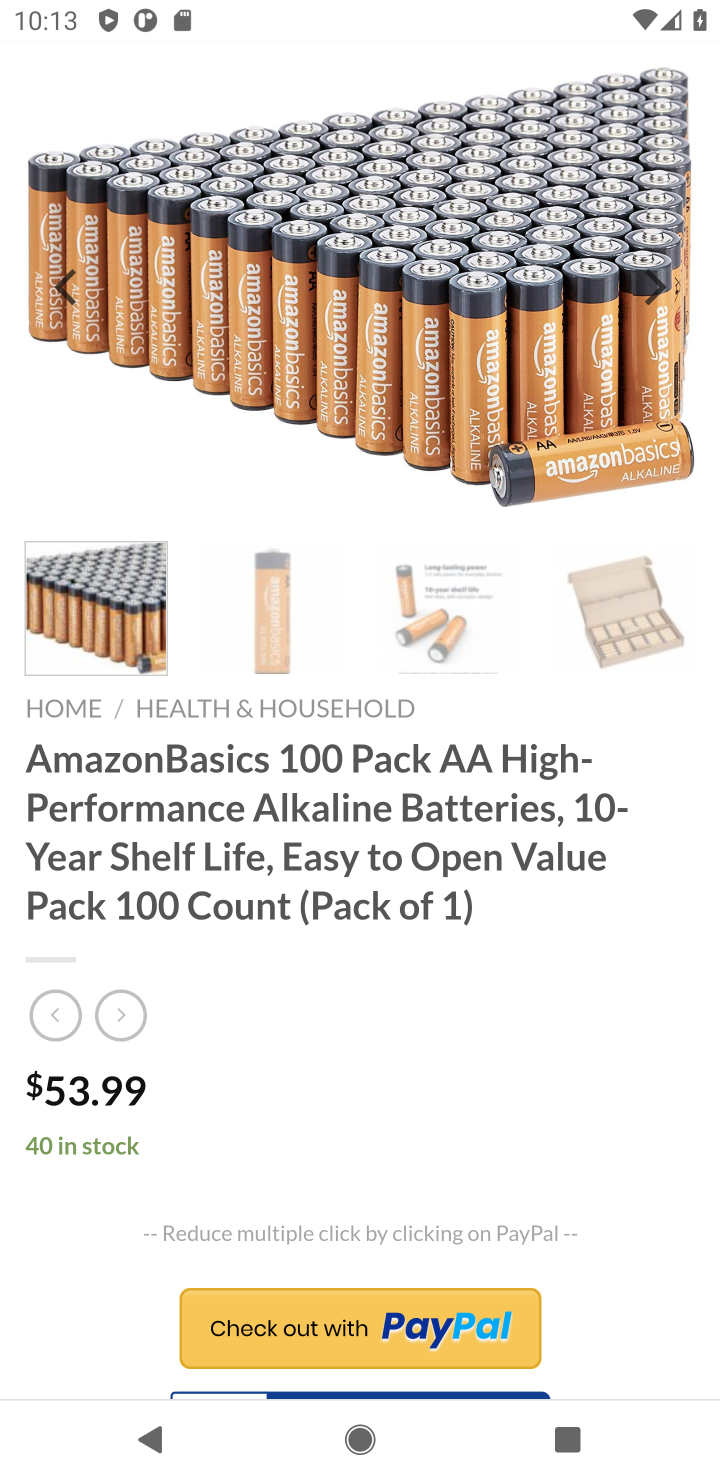
Step 28: drag from (456, 1025) to (433, 489)
Your task to perform on an android device: Clear all items from cart on bestbuy.com. Add "amazon basics triple a" to the cart on bestbuy.com Image 29: 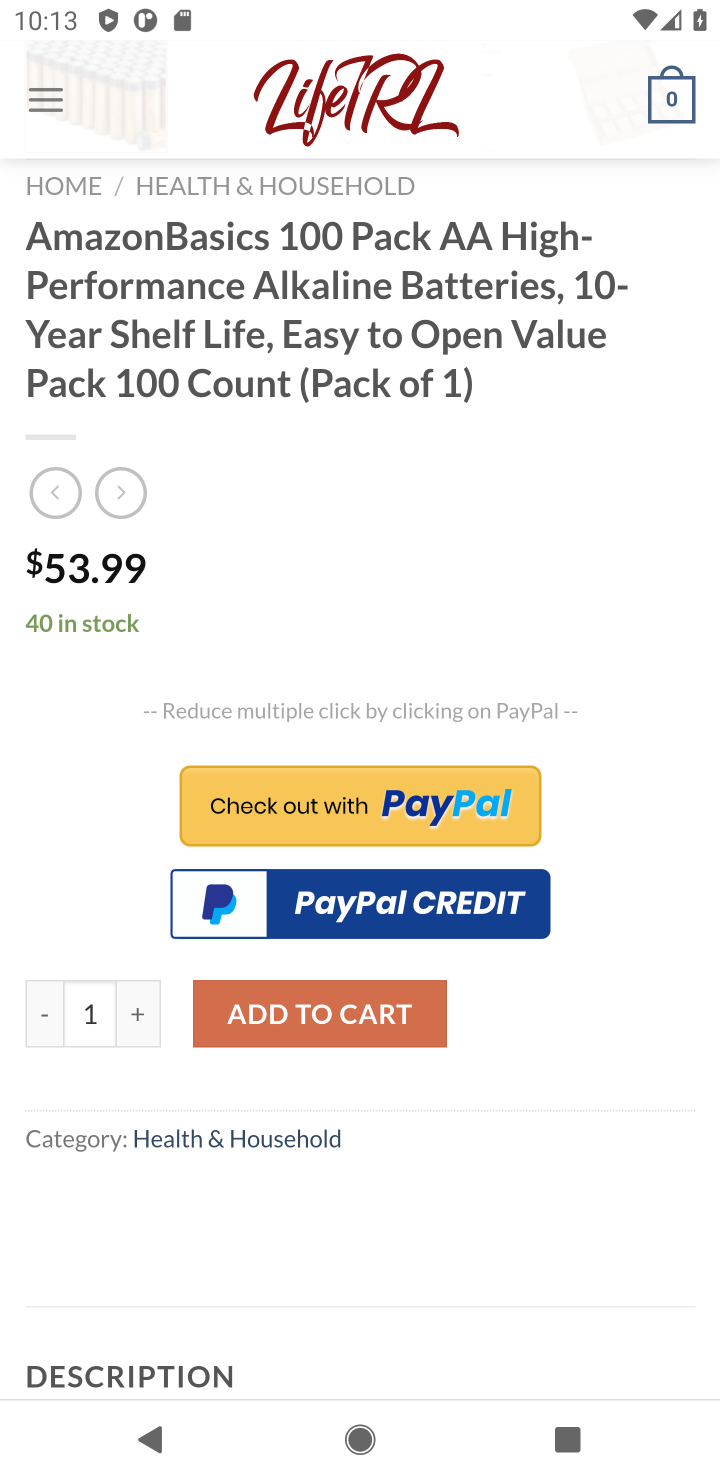
Step 29: click (349, 1013)
Your task to perform on an android device: Clear all items from cart on bestbuy.com. Add "amazon basics triple a" to the cart on bestbuy.com Image 30: 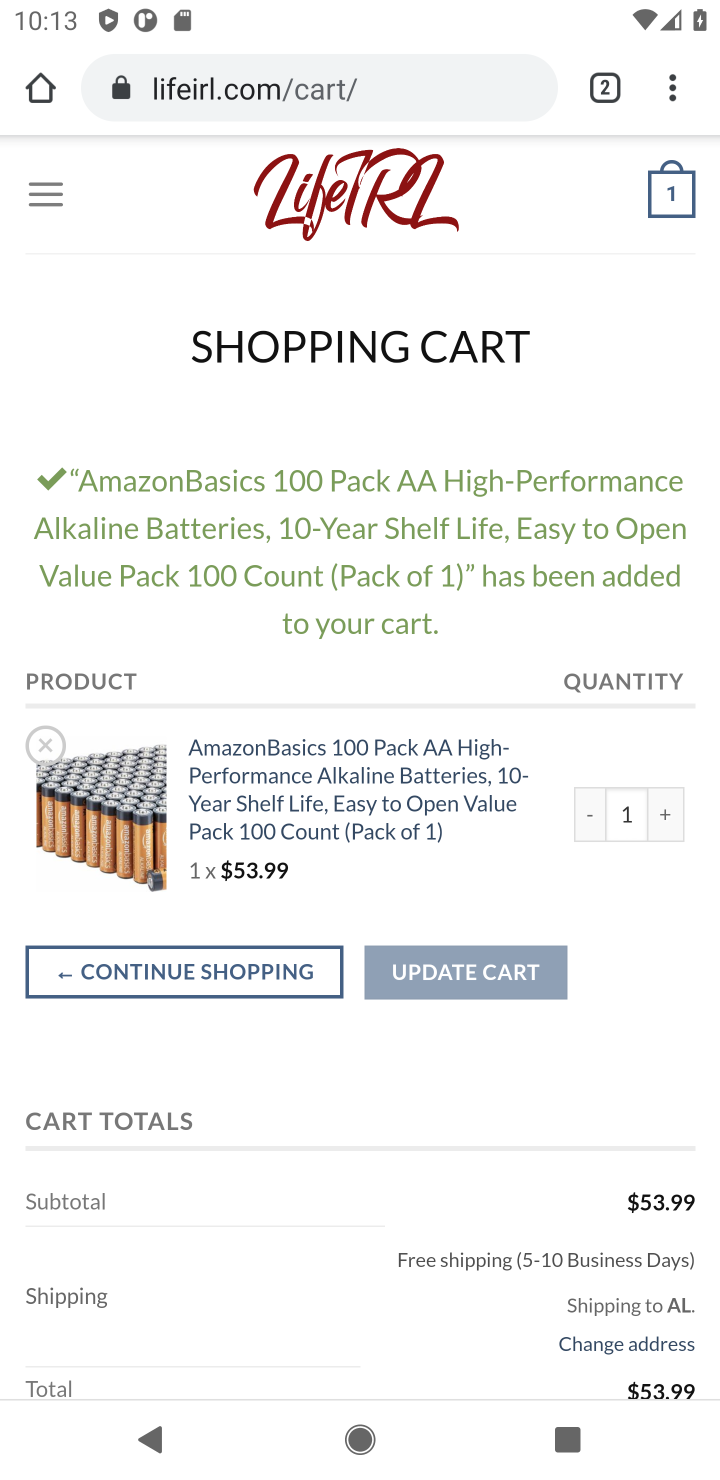
Step 30: task complete